Your task to perform on an android device: turn off airplane mode Image 0: 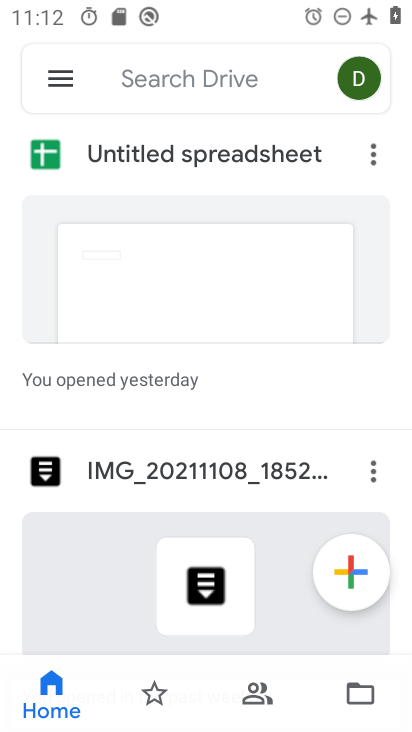
Step 0: press home button
Your task to perform on an android device: turn off airplane mode Image 1: 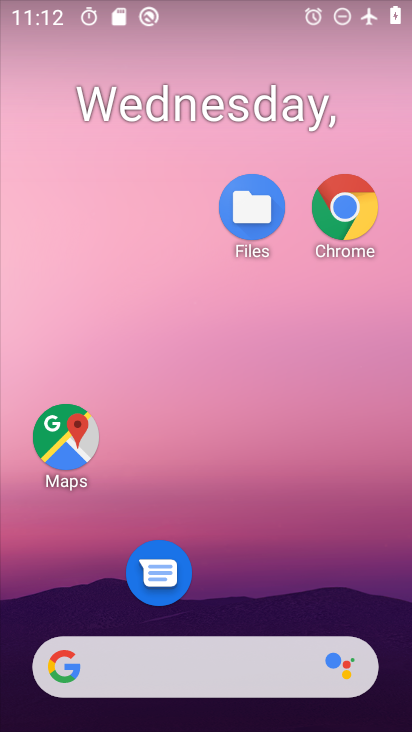
Step 1: drag from (295, 682) to (374, 253)
Your task to perform on an android device: turn off airplane mode Image 2: 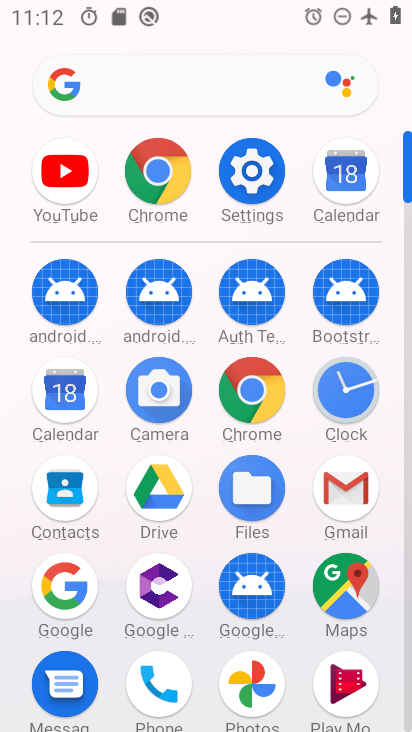
Step 2: click (271, 197)
Your task to perform on an android device: turn off airplane mode Image 3: 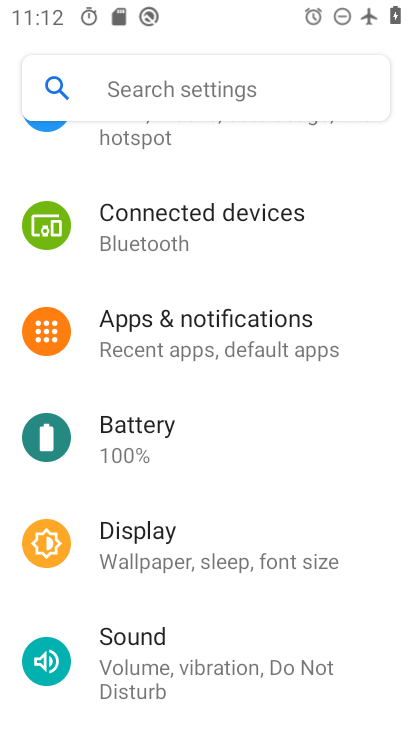
Step 3: drag from (270, 200) to (200, 449)
Your task to perform on an android device: turn off airplane mode Image 4: 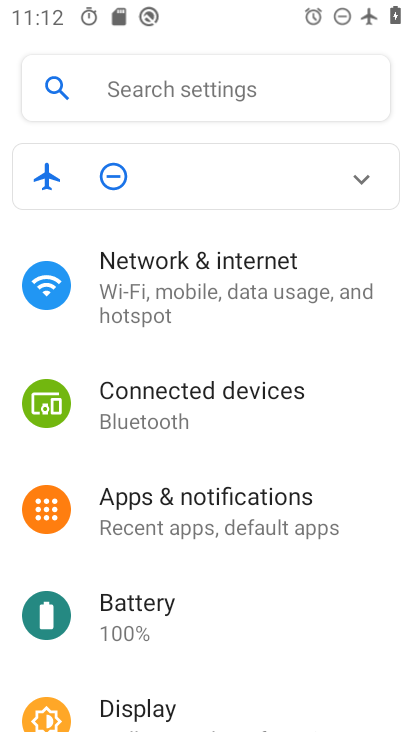
Step 4: click (230, 285)
Your task to perform on an android device: turn off airplane mode Image 5: 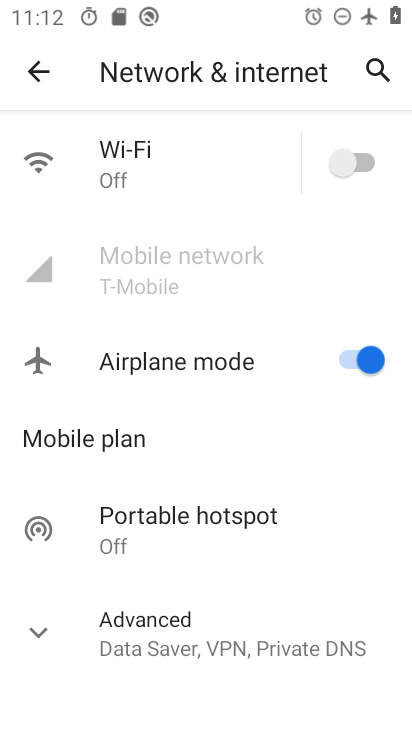
Step 5: click (354, 361)
Your task to perform on an android device: turn off airplane mode Image 6: 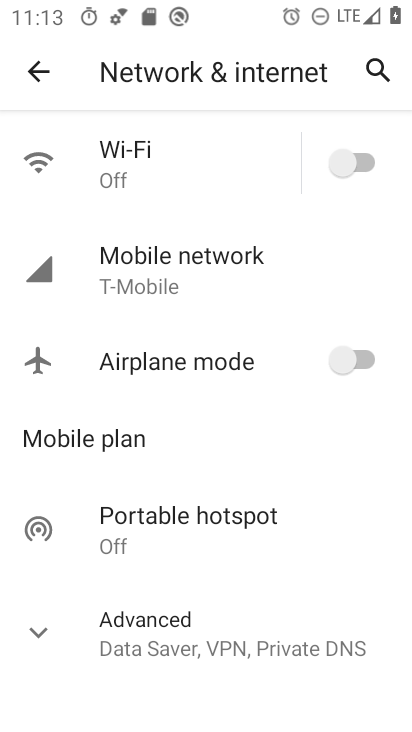
Step 6: click (360, 156)
Your task to perform on an android device: turn off airplane mode Image 7: 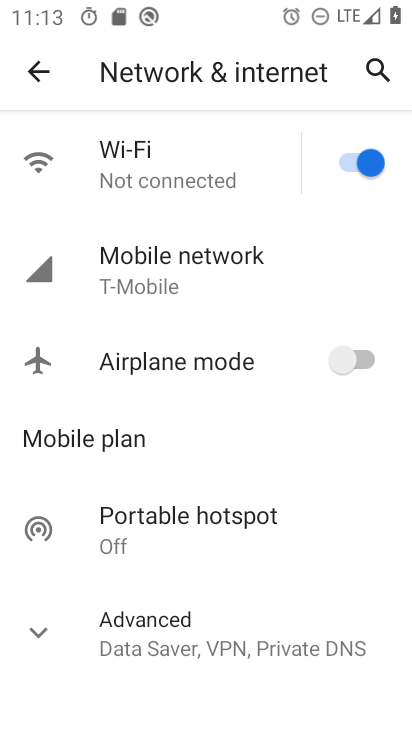
Step 7: task complete